Your task to perform on an android device: Open accessibility settings Image 0: 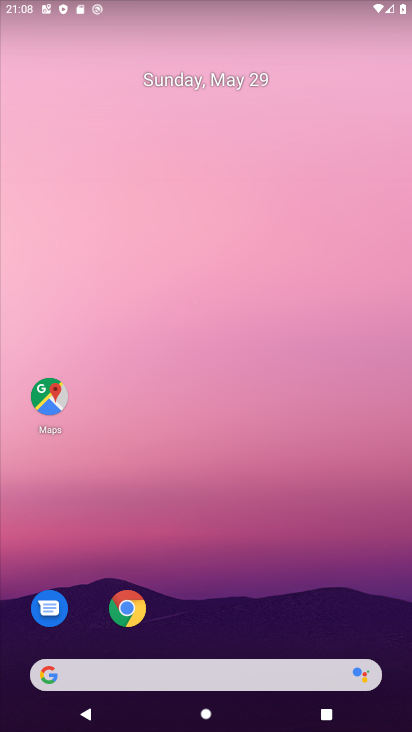
Step 0: drag from (378, 631) to (372, 165)
Your task to perform on an android device: Open accessibility settings Image 1: 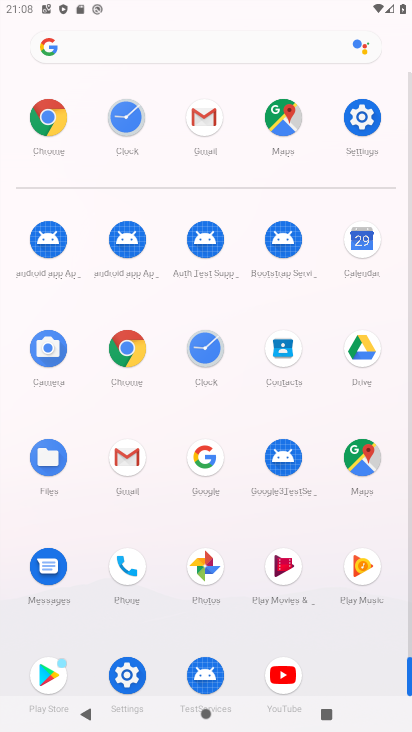
Step 1: click (365, 136)
Your task to perform on an android device: Open accessibility settings Image 2: 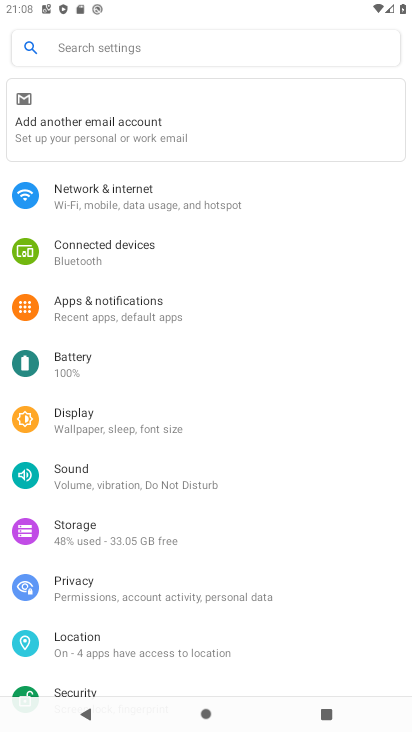
Step 2: drag from (335, 448) to (341, 342)
Your task to perform on an android device: Open accessibility settings Image 3: 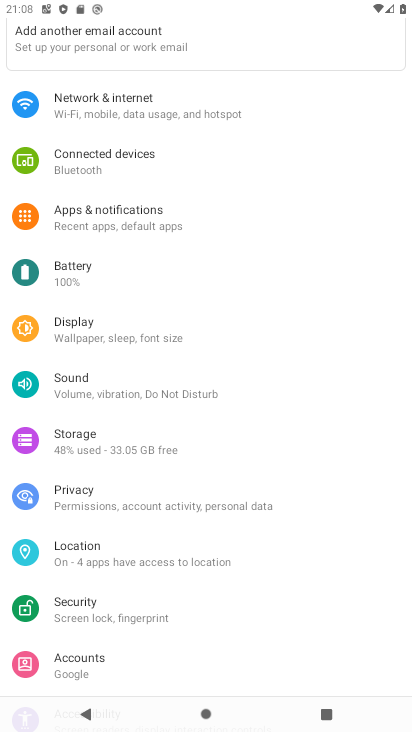
Step 3: drag from (322, 510) to (347, 335)
Your task to perform on an android device: Open accessibility settings Image 4: 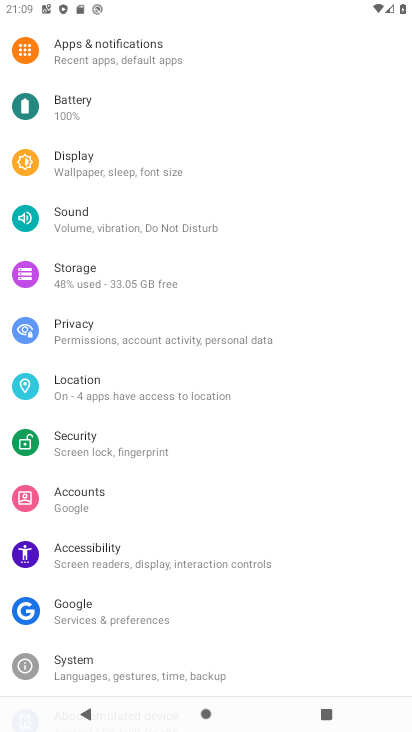
Step 4: drag from (344, 576) to (358, 481)
Your task to perform on an android device: Open accessibility settings Image 5: 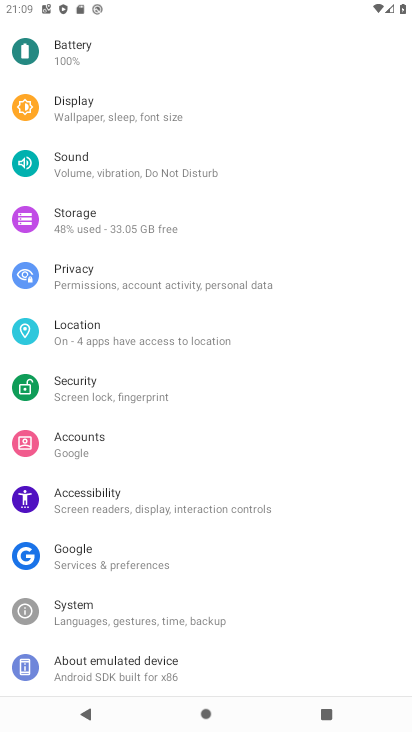
Step 5: drag from (336, 598) to (339, 465)
Your task to perform on an android device: Open accessibility settings Image 6: 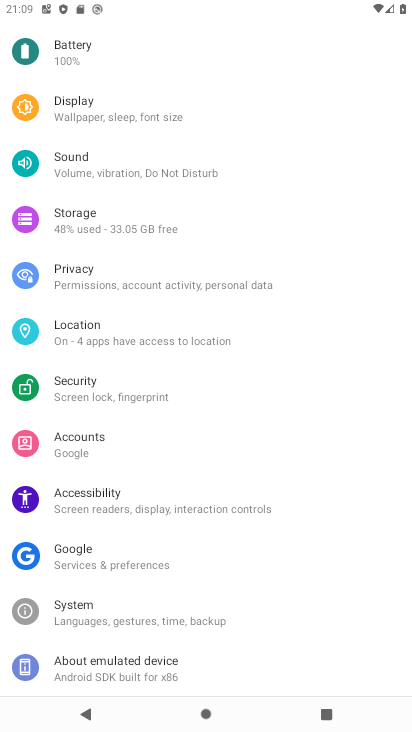
Step 6: click (253, 513)
Your task to perform on an android device: Open accessibility settings Image 7: 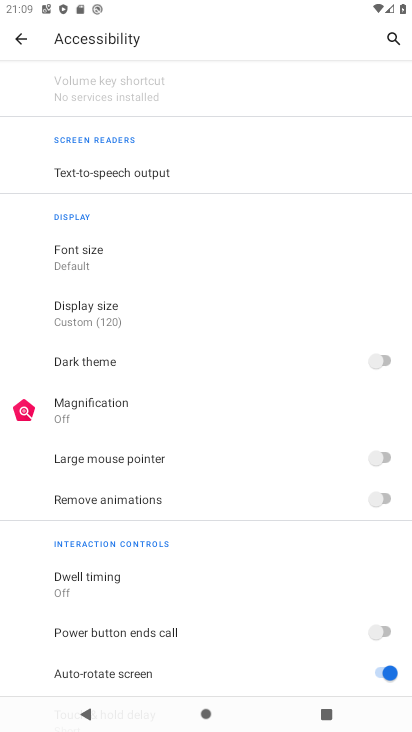
Step 7: task complete